Your task to perform on an android device: empty trash in the gmail app Image 0: 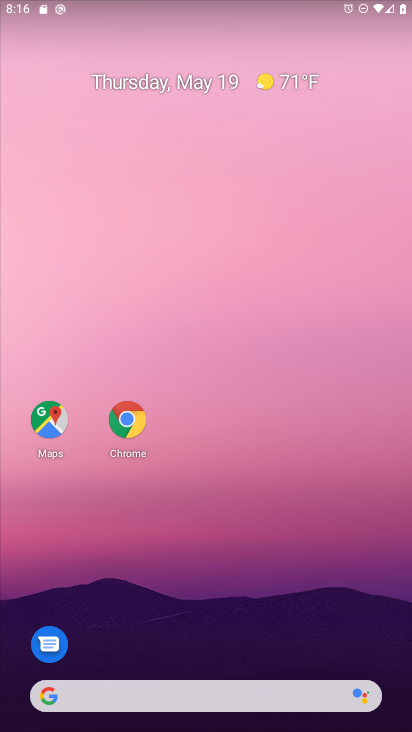
Step 0: drag from (154, 667) to (241, 346)
Your task to perform on an android device: empty trash in the gmail app Image 1: 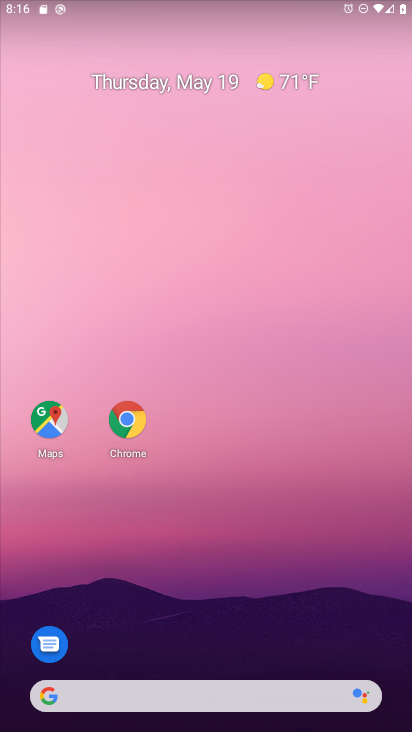
Step 1: drag from (190, 679) to (257, 185)
Your task to perform on an android device: empty trash in the gmail app Image 2: 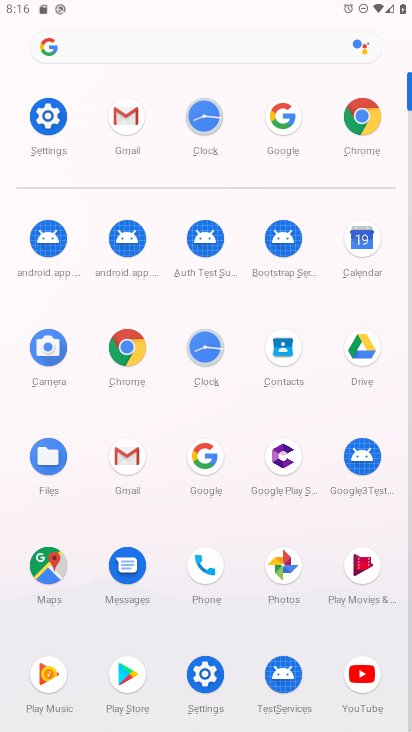
Step 2: click (126, 464)
Your task to perform on an android device: empty trash in the gmail app Image 3: 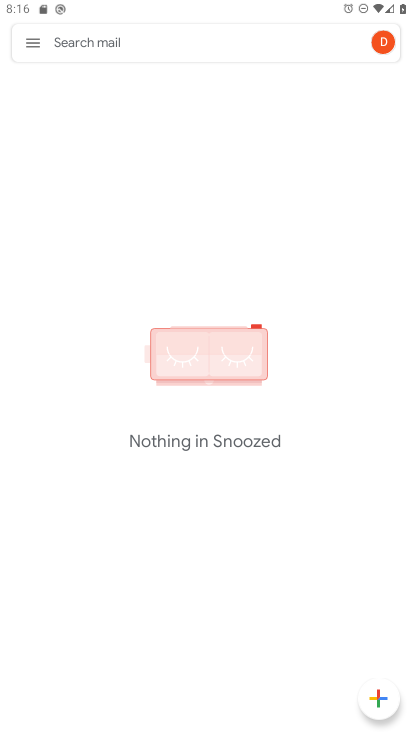
Step 3: click (24, 40)
Your task to perform on an android device: empty trash in the gmail app Image 4: 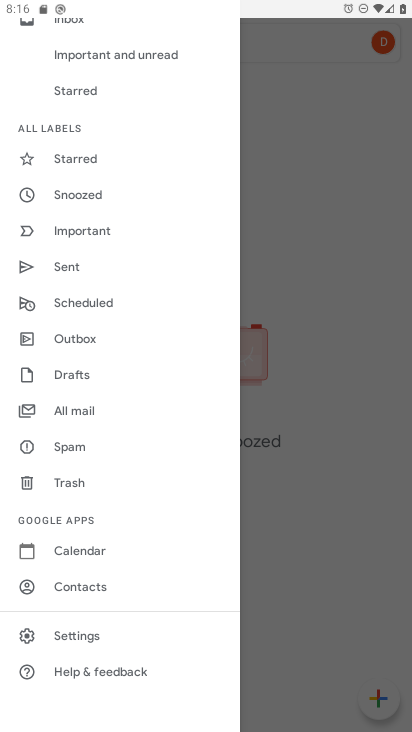
Step 4: click (69, 486)
Your task to perform on an android device: empty trash in the gmail app Image 5: 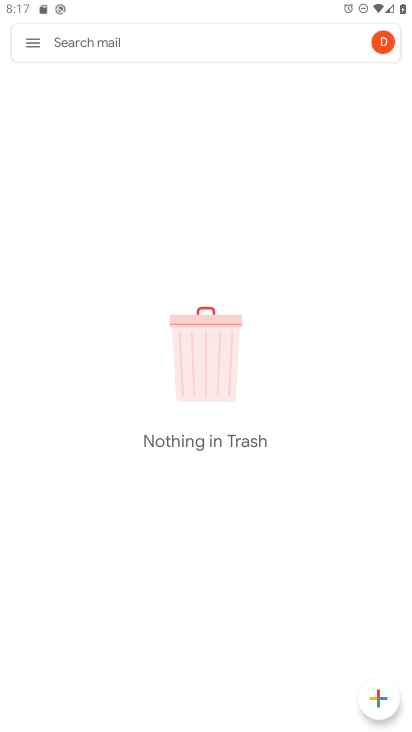
Step 5: task complete